Your task to perform on an android device: delete browsing data in the chrome app Image 0: 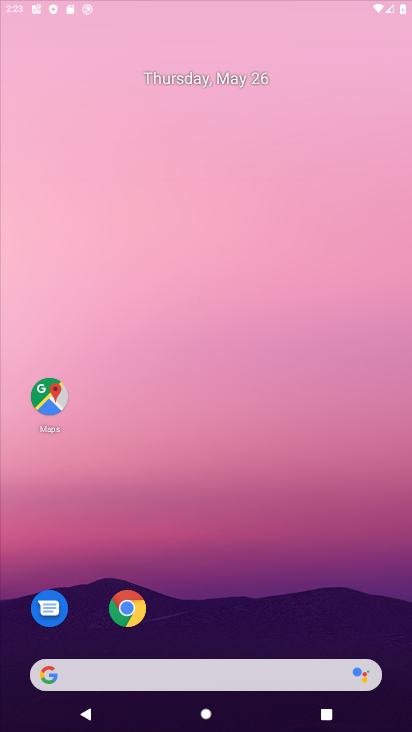
Step 0: drag from (342, 549) to (401, 18)
Your task to perform on an android device: delete browsing data in the chrome app Image 1: 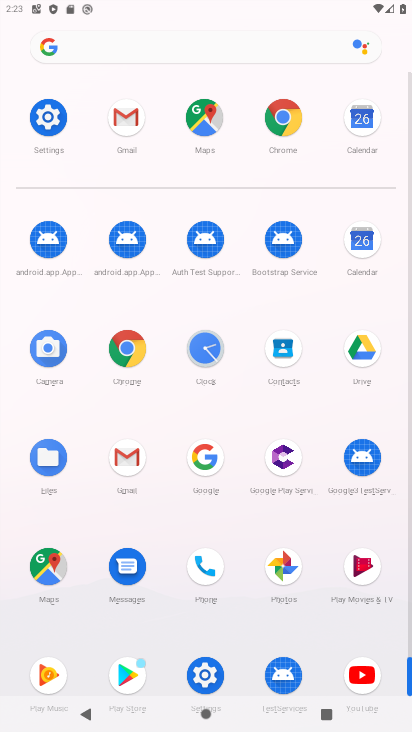
Step 1: click (282, 126)
Your task to perform on an android device: delete browsing data in the chrome app Image 2: 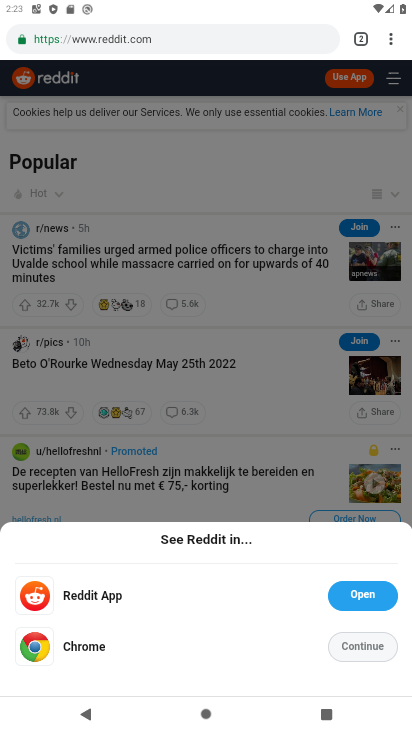
Step 2: drag from (402, 44) to (248, 227)
Your task to perform on an android device: delete browsing data in the chrome app Image 3: 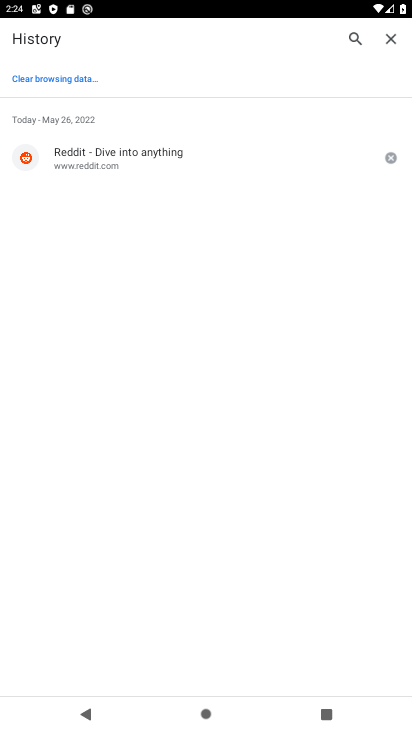
Step 3: click (49, 85)
Your task to perform on an android device: delete browsing data in the chrome app Image 4: 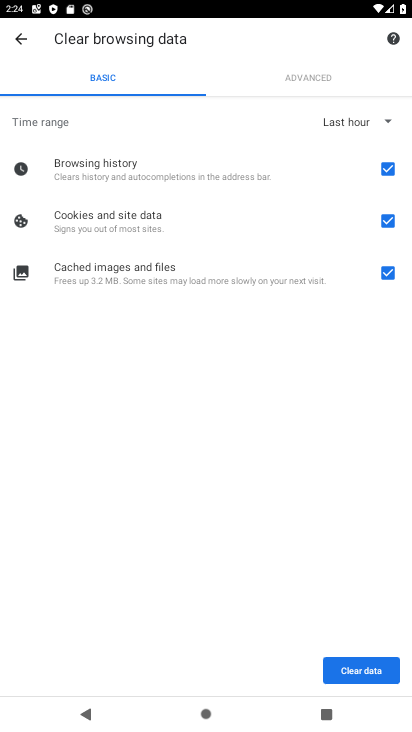
Step 4: click (367, 672)
Your task to perform on an android device: delete browsing data in the chrome app Image 5: 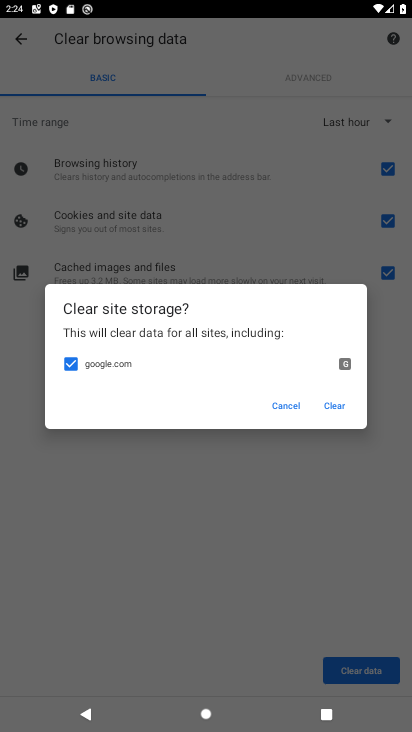
Step 5: click (331, 403)
Your task to perform on an android device: delete browsing data in the chrome app Image 6: 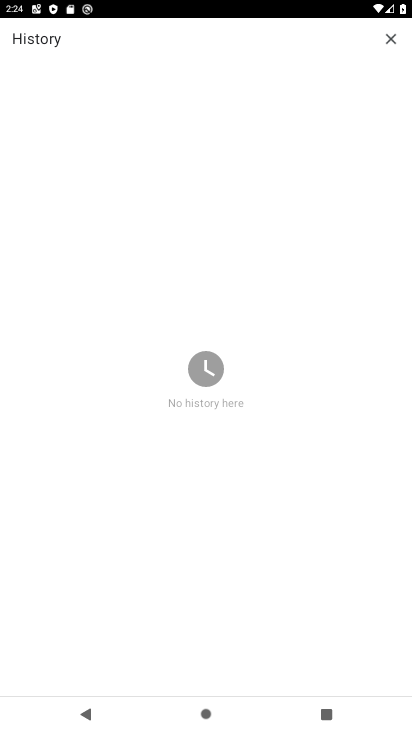
Step 6: task complete